Your task to perform on an android device: open app "Adobe Acrobat Reader: Edit PDF" (install if not already installed) Image 0: 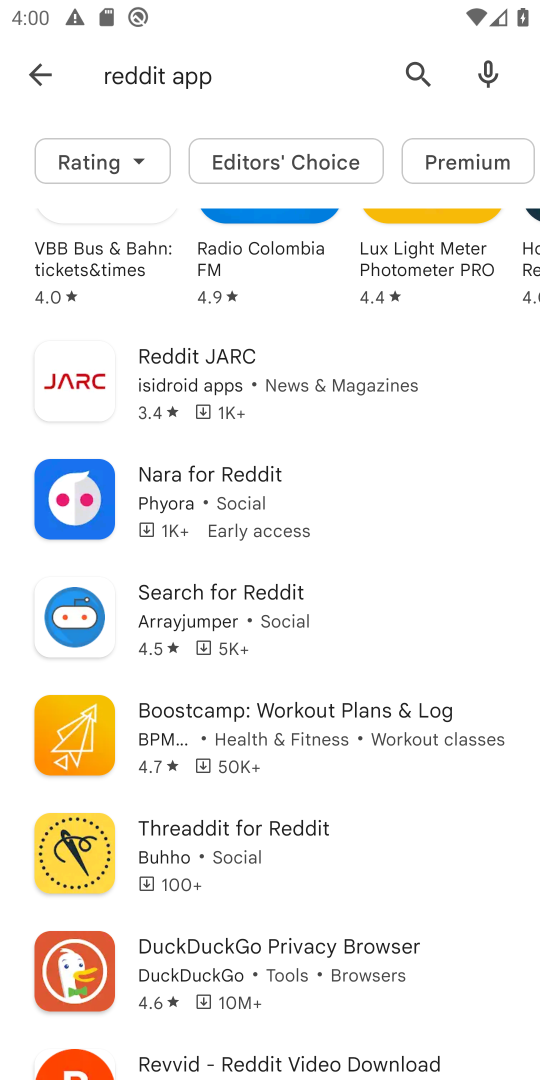
Step 0: press home button
Your task to perform on an android device: open app "Adobe Acrobat Reader: Edit PDF" (install if not already installed) Image 1: 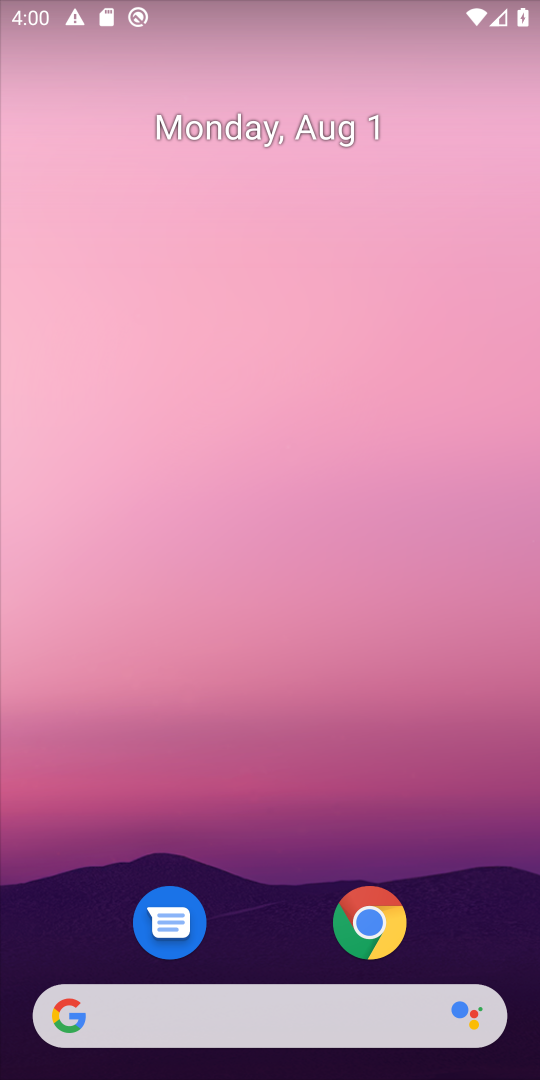
Step 1: drag from (269, 938) to (378, 23)
Your task to perform on an android device: open app "Adobe Acrobat Reader: Edit PDF" (install if not already installed) Image 2: 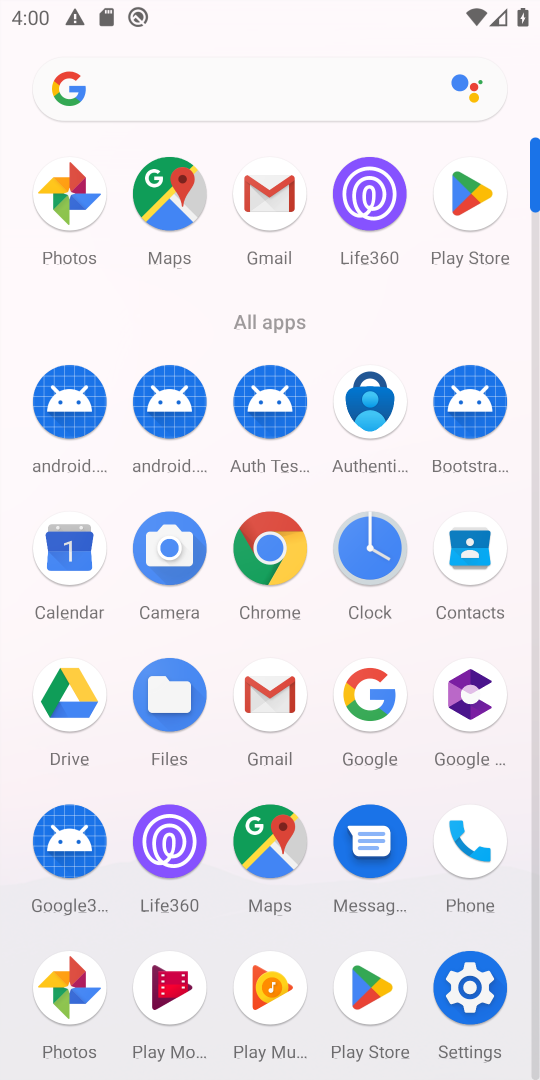
Step 2: click (473, 200)
Your task to perform on an android device: open app "Adobe Acrobat Reader: Edit PDF" (install if not already installed) Image 3: 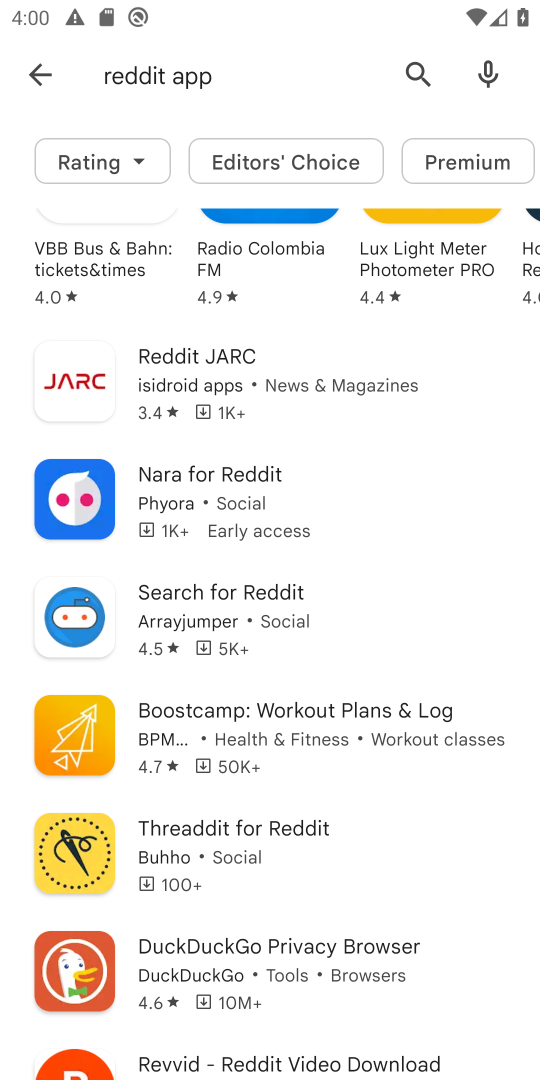
Step 3: click (407, 71)
Your task to perform on an android device: open app "Adobe Acrobat Reader: Edit PDF" (install if not already installed) Image 4: 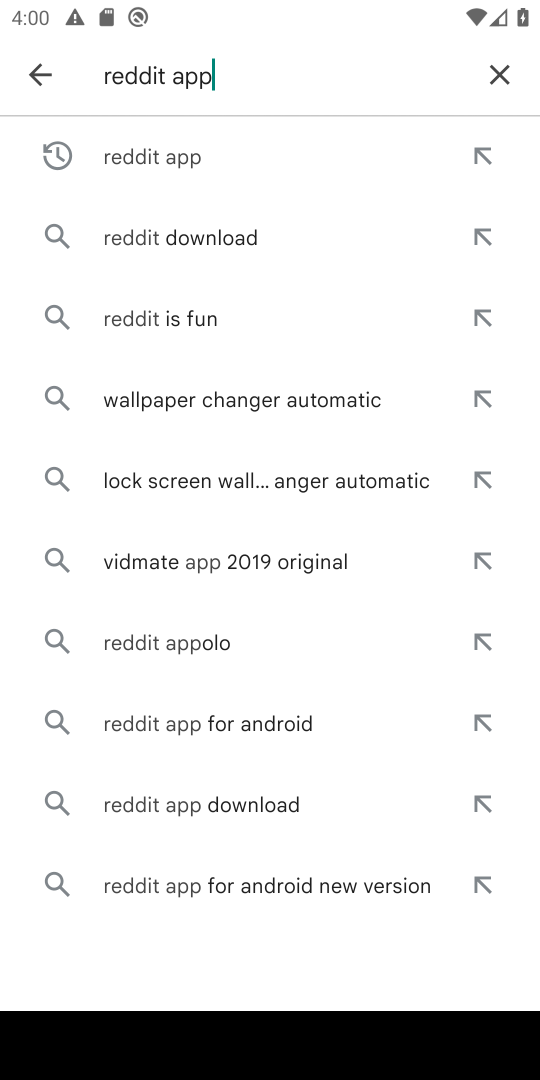
Step 4: click (492, 79)
Your task to perform on an android device: open app "Adobe Acrobat Reader: Edit PDF" (install if not already installed) Image 5: 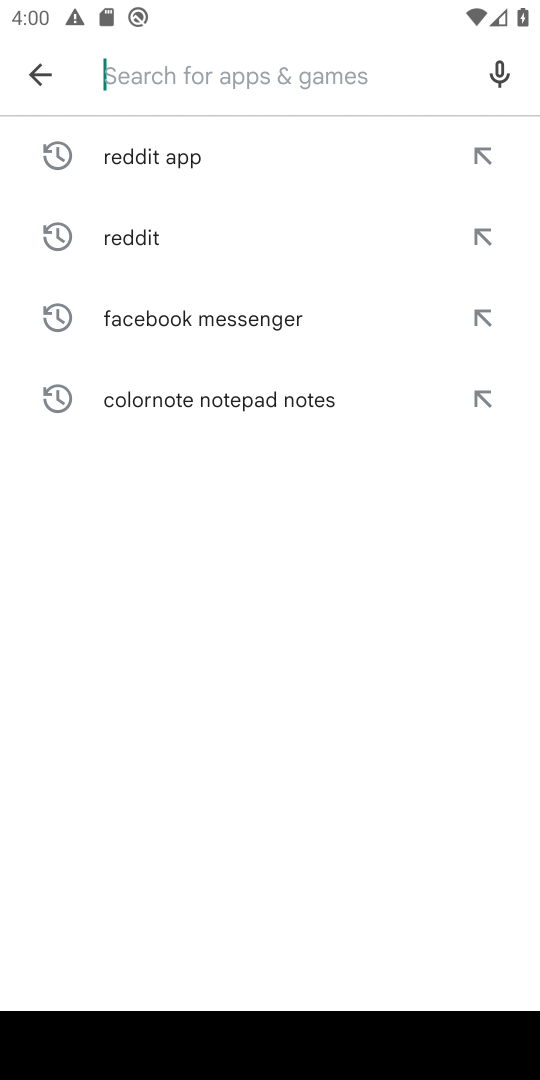
Step 5: type "Adobe Acrobat Reader: Edit PDF"
Your task to perform on an android device: open app "Adobe Acrobat Reader: Edit PDF" (install if not already installed) Image 6: 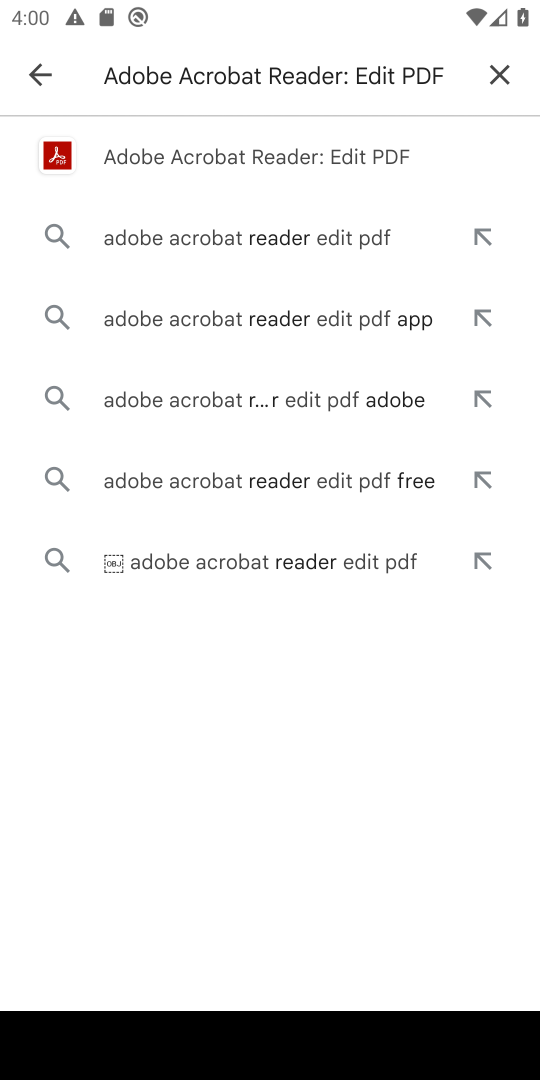
Step 6: click (228, 157)
Your task to perform on an android device: open app "Adobe Acrobat Reader: Edit PDF" (install if not already installed) Image 7: 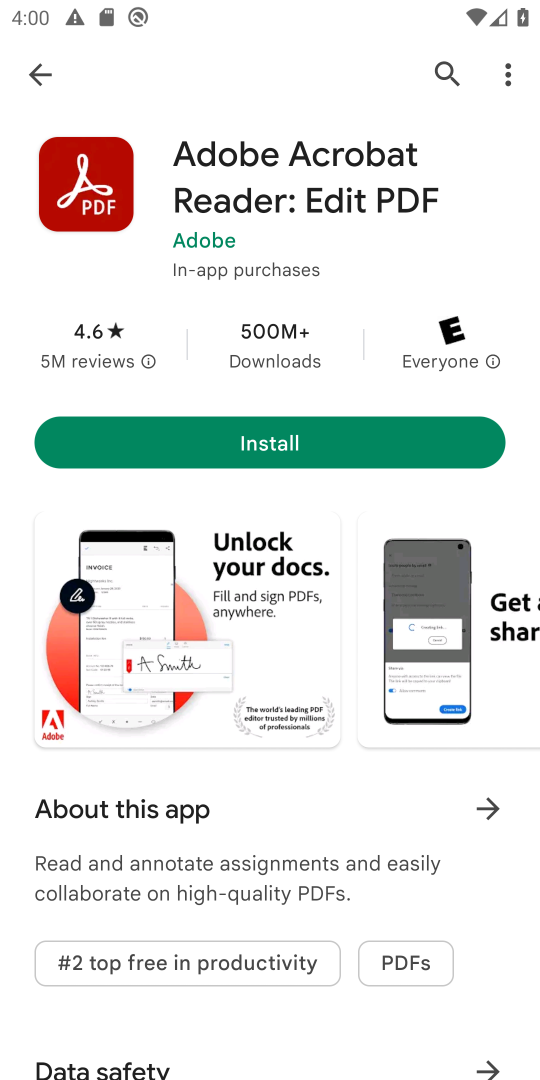
Step 7: click (234, 457)
Your task to perform on an android device: open app "Adobe Acrobat Reader: Edit PDF" (install if not already installed) Image 8: 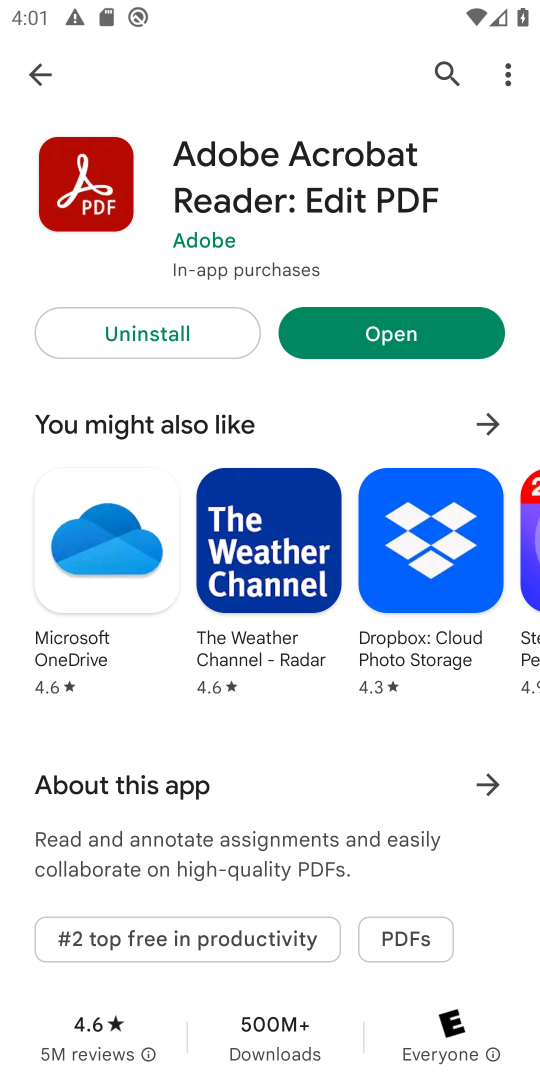
Step 8: click (380, 351)
Your task to perform on an android device: open app "Adobe Acrobat Reader: Edit PDF" (install if not already installed) Image 9: 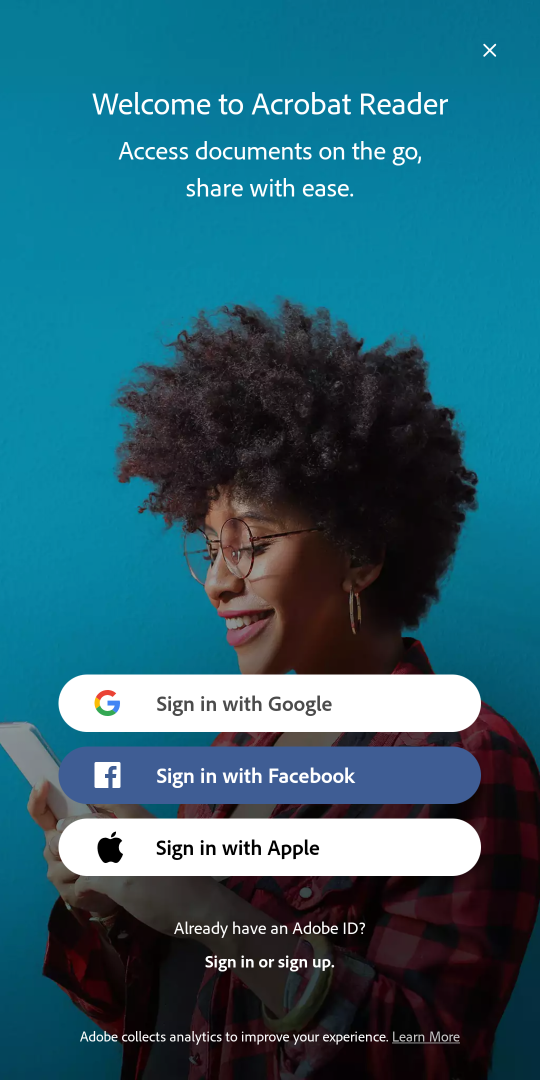
Step 9: task complete